Your task to perform on an android device: Toggle the flashlight Image 0: 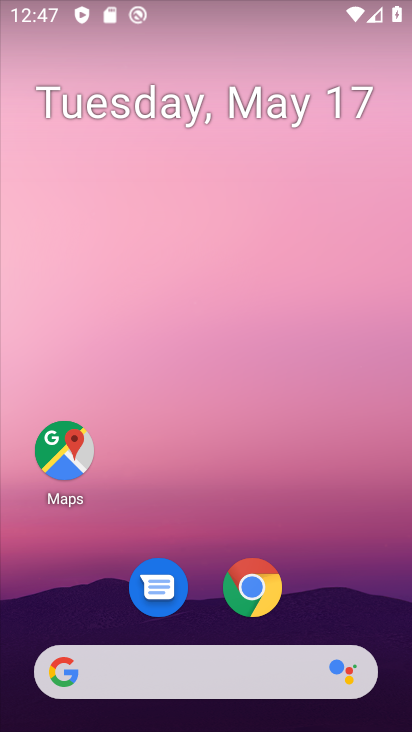
Step 0: drag from (349, 594) to (322, 130)
Your task to perform on an android device: Toggle the flashlight Image 1: 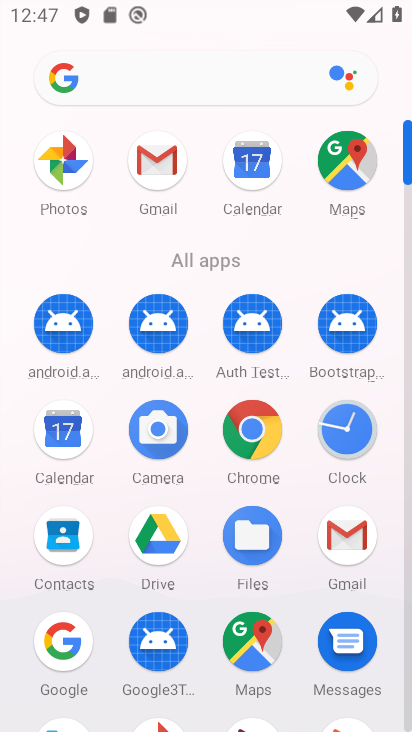
Step 1: click (407, 641)
Your task to perform on an android device: Toggle the flashlight Image 2: 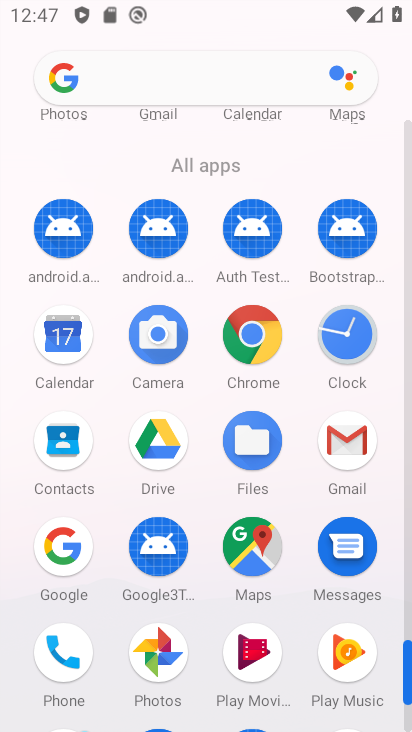
Step 2: drag from (401, 657) to (296, 728)
Your task to perform on an android device: Toggle the flashlight Image 3: 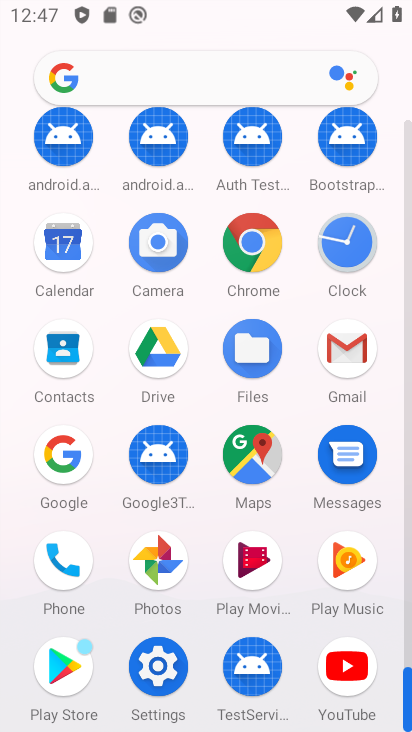
Step 3: click (171, 659)
Your task to perform on an android device: Toggle the flashlight Image 4: 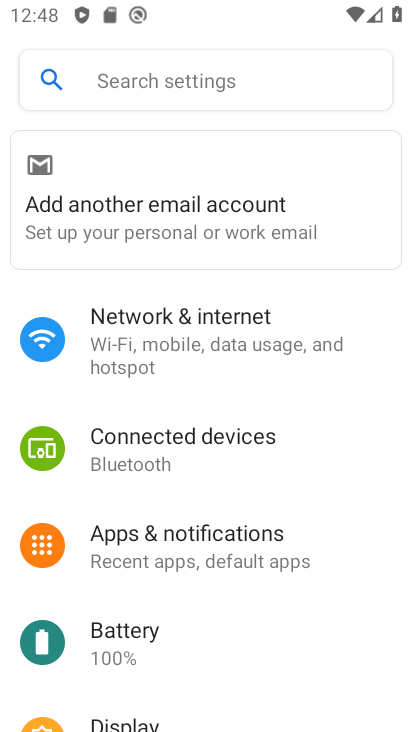
Step 4: click (207, 600)
Your task to perform on an android device: Toggle the flashlight Image 5: 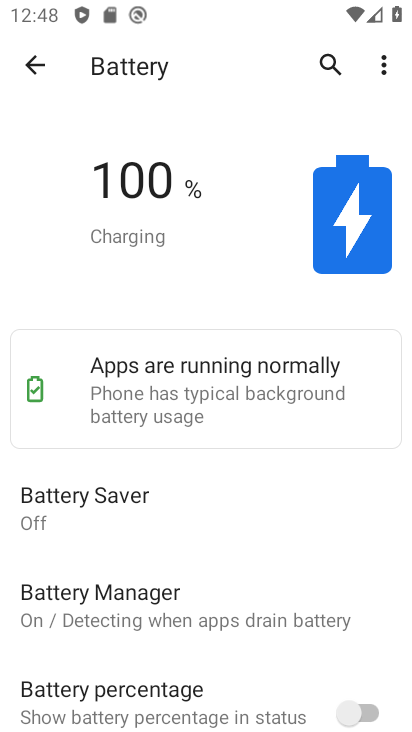
Step 5: task complete